Your task to perform on an android device: Search for Italian restaurants on Maps Image 0: 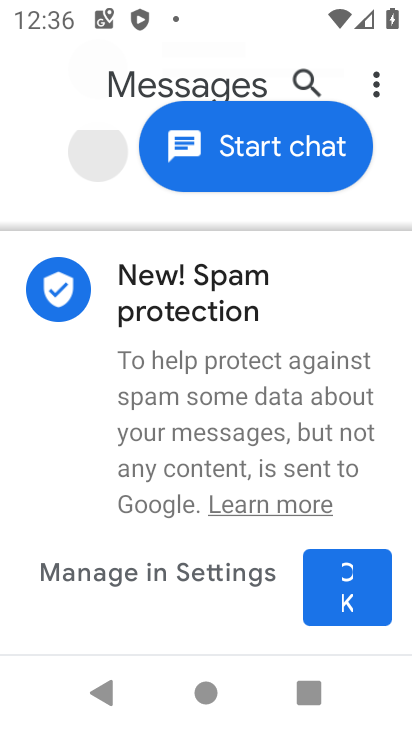
Step 0: press home button
Your task to perform on an android device: Search for Italian restaurants on Maps Image 1: 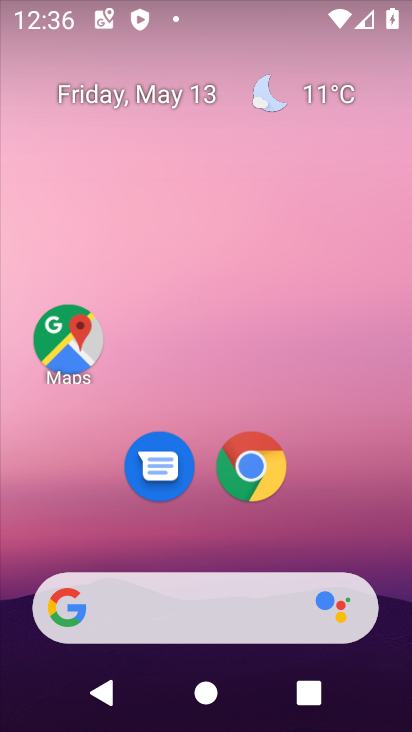
Step 1: click (82, 346)
Your task to perform on an android device: Search for Italian restaurants on Maps Image 2: 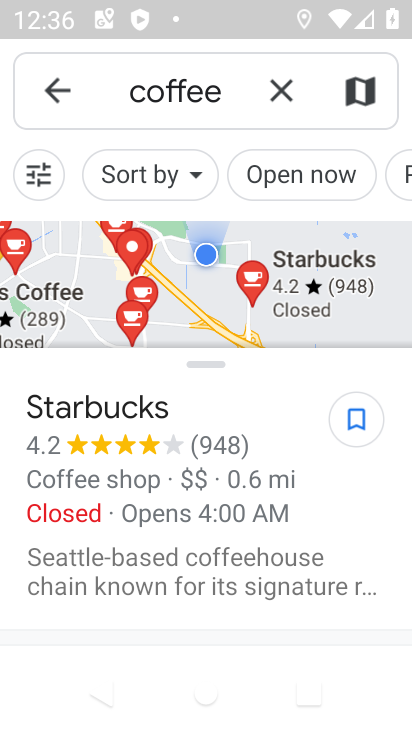
Step 2: click (281, 93)
Your task to perform on an android device: Search for Italian restaurants on Maps Image 3: 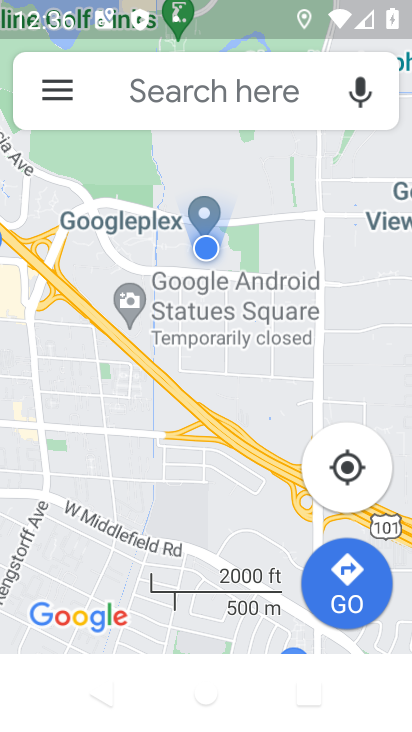
Step 3: click (175, 86)
Your task to perform on an android device: Search for Italian restaurants on Maps Image 4: 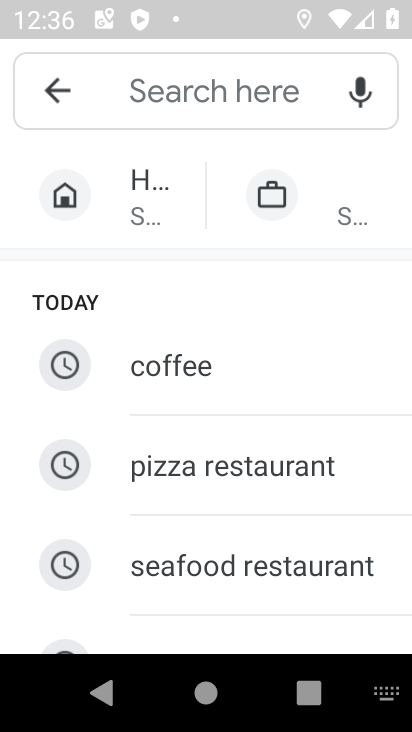
Step 4: type "italian restaurants"
Your task to perform on an android device: Search for Italian restaurants on Maps Image 5: 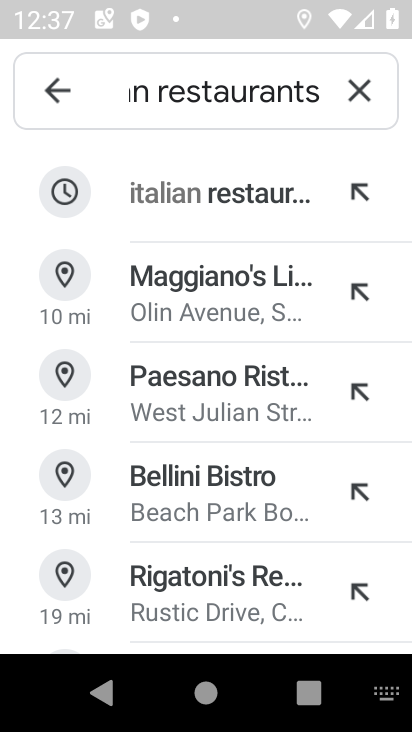
Step 5: click (259, 178)
Your task to perform on an android device: Search for Italian restaurants on Maps Image 6: 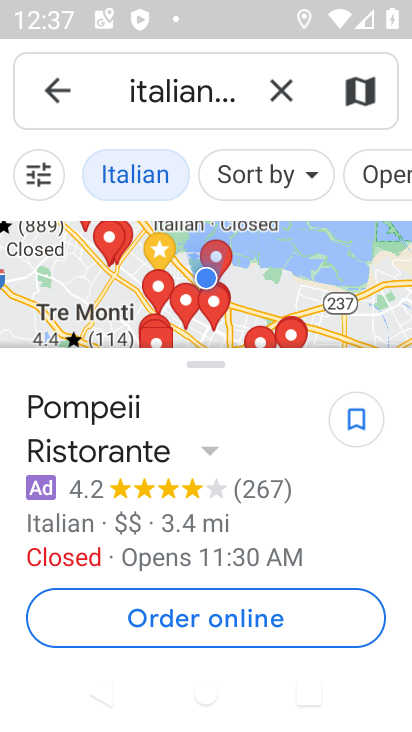
Step 6: task complete